Your task to perform on an android device: uninstall "Booking.com: Hotels and more" Image 0: 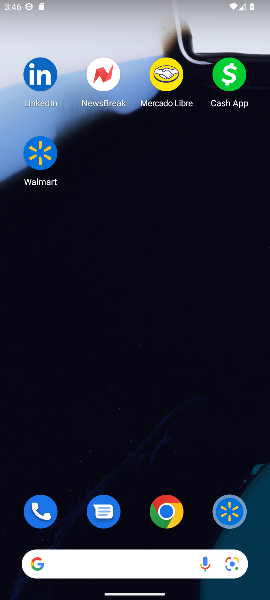
Step 0: task impossible